Your task to perform on an android device: turn off translation in the chrome app Image 0: 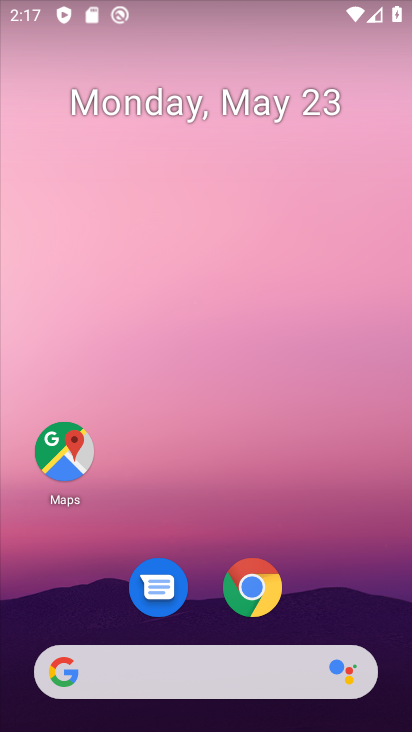
Step 0: click (245, 596)
Your task to perform on an android device: turn off translation in the chrome app Image 1: 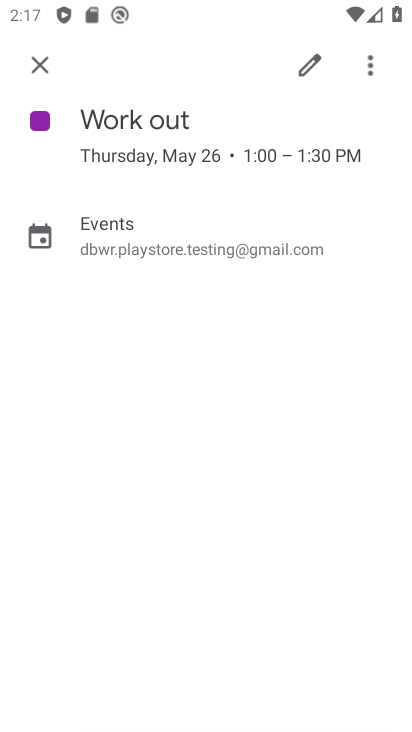
Step 1: click (29, 43)
Your task to perform on an android device: turn off translation in the chrome app Image 2: 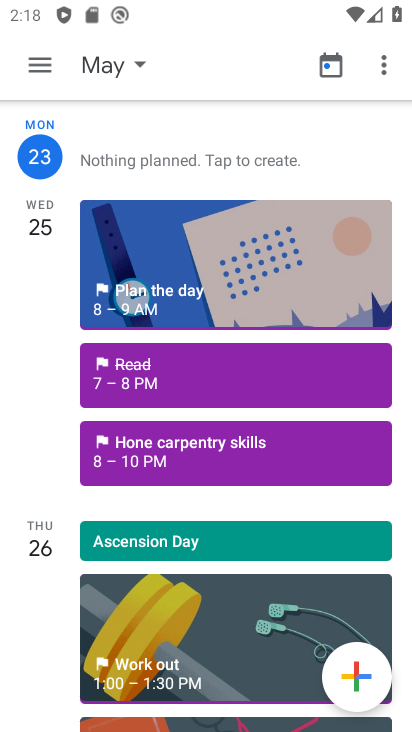
Step 2: press home button
Your task to perform on an android device: turn off translation in the chrome app Image 3: 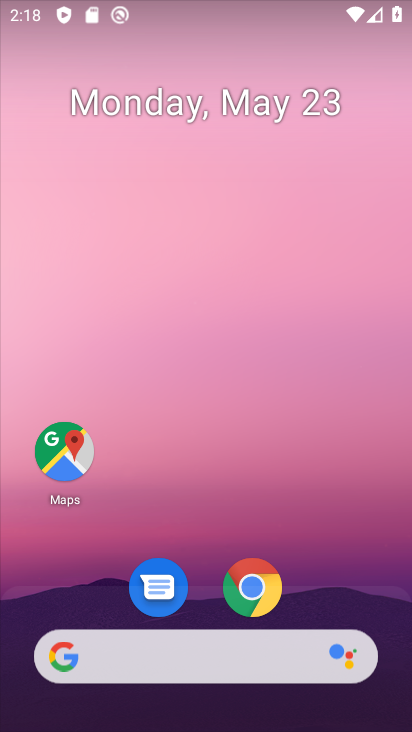
Step 3: click (251, 587)
Your task to perform on an android device: turn off translation in the chrome app Image 4: 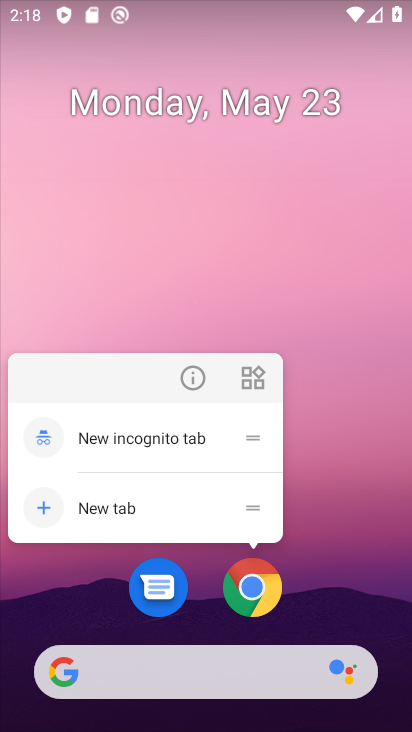
Step 4: click (243, 583)
Your task to perform on an android device: turn off translation in the chrome app Image 5: 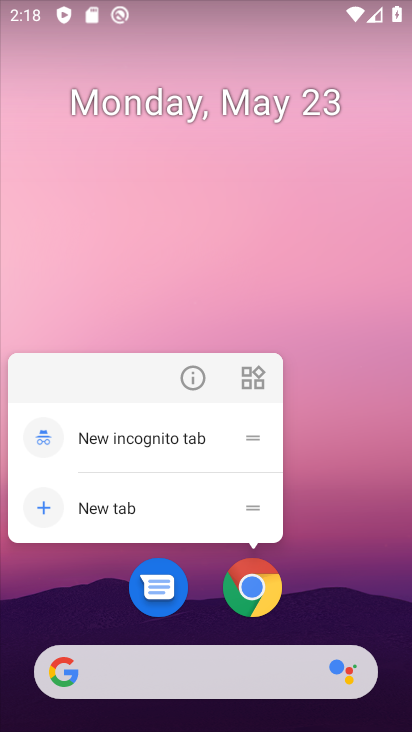
Step 5: click (193, 371)
Your task to perform on an android device: turn off translation in the chrome app Image 6: 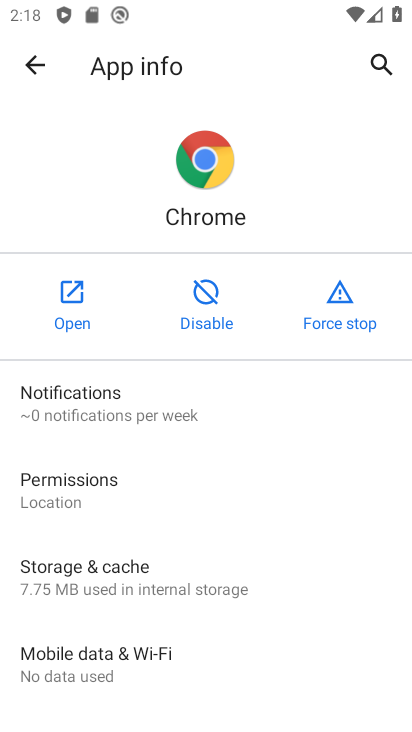
Step 6: click (66, 306)
Your task to perform on an android device: turn off translation in the chrome app Image 7: 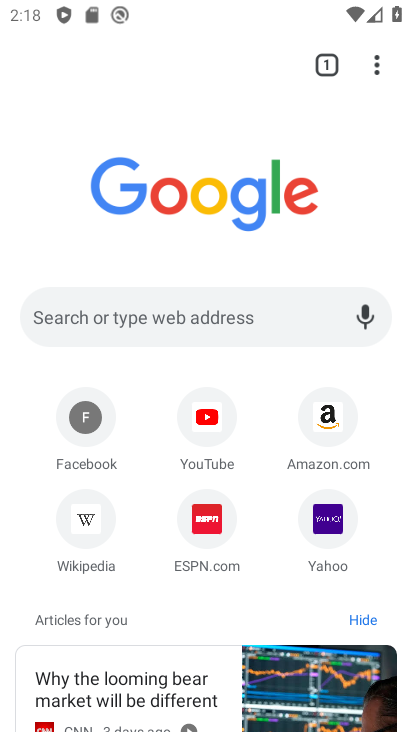
Step 7: click (373, 60)
Your task to perform on an android device: turn off translation in the chrome app Image 8: 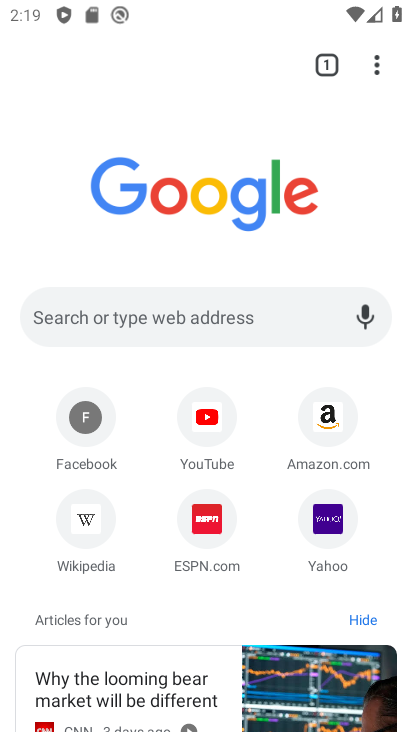
Step 8: click (394, 63)
Your task to perform on an android device: turn off translation in the chrome app Image 9: 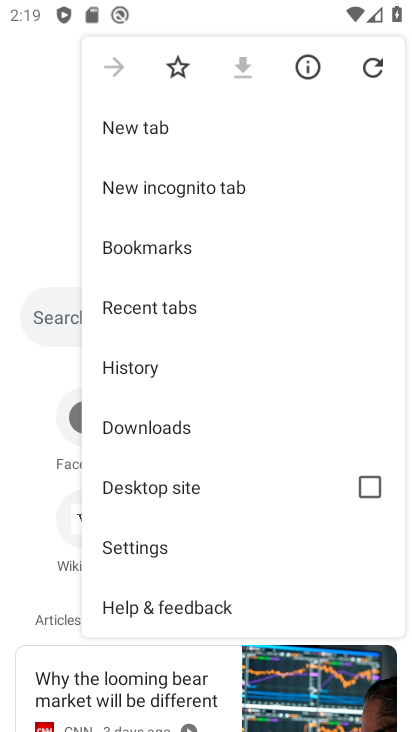
Step 9: click (150, 549)
Your task to perform on an android device: turn off translation in the chrome app Image 10: 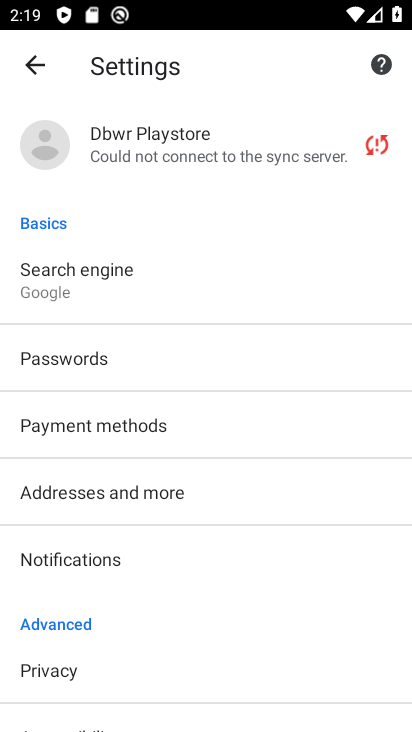
Step 10: drag from (106, 581) to (268, 246)
Your task to perform on an android device: turn off translation in the chrome app Image 11: 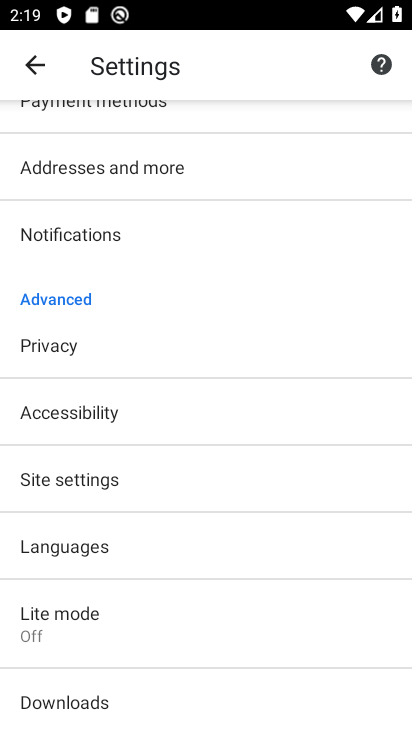
Step 11: click (86, 537)
Your task to perform on an android device: turn off translation in the chrome app Image 12: 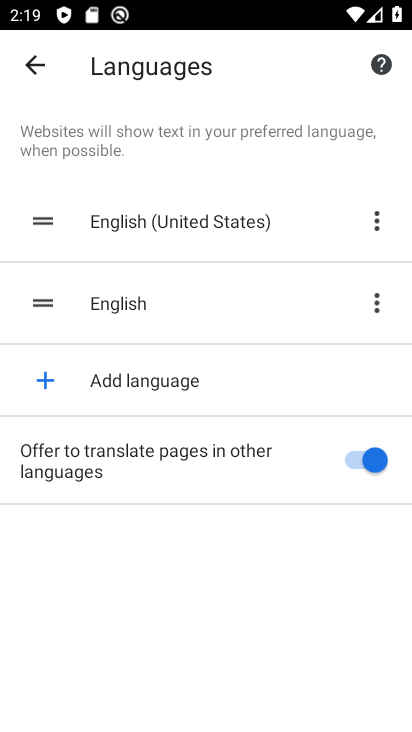
Step 12: click (353, 460)
Your task to perform on an android device: turn off translation in the chrome app Image 13: 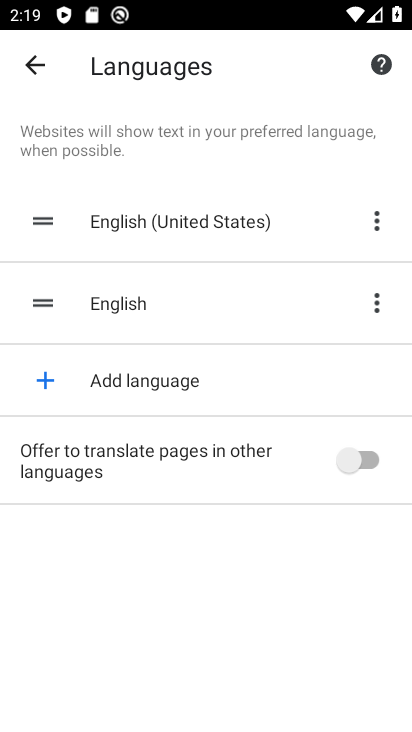
Step 13: task complete